Your task to perform on an android device: toggle pop-ups in chrome Image 0: 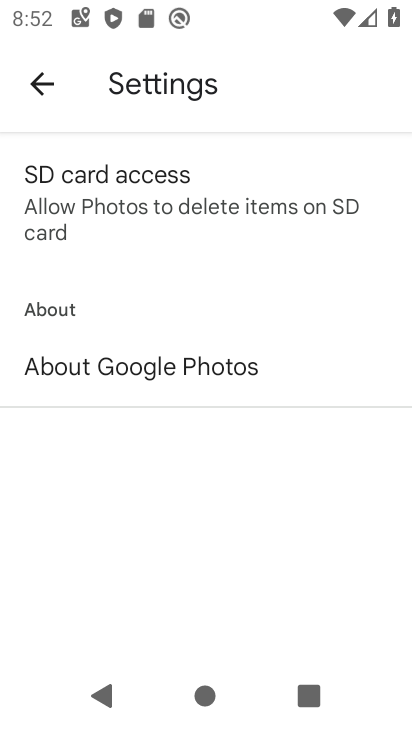
Step 0: drag from (220, 542) to (322, 54)
Your task to perform on an android device: toggle pop-ups in chrome Image 1: 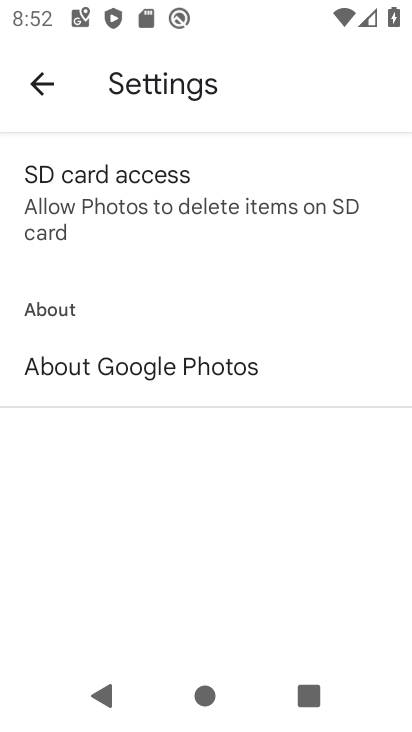
Step 1: press home button
Your task to perform on an android device: toggle pop-ups in chrome Image 2: 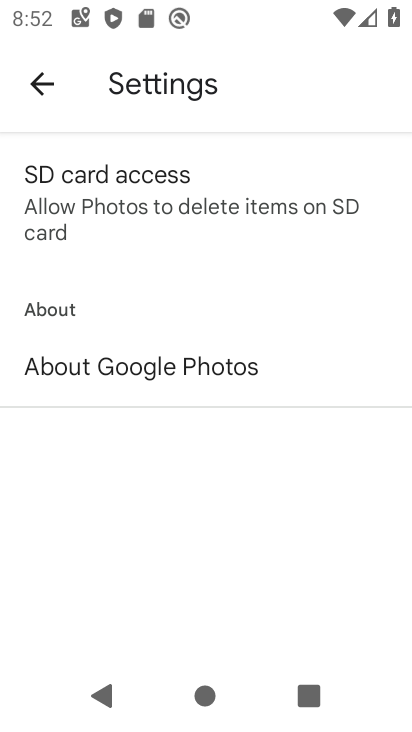
Step 2: press home button
Your task to perform on an android device: toggle pop-ups in chrome Image 3: 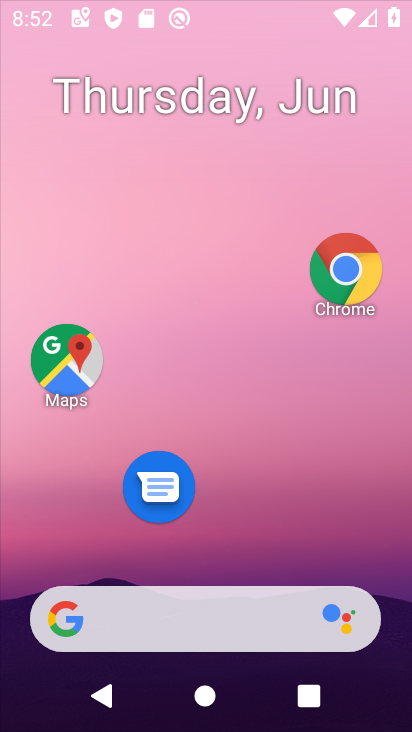
Step 3: click (278, 276)
Your task to perform on an android device: toggle pop-ups in chrome Image 4: 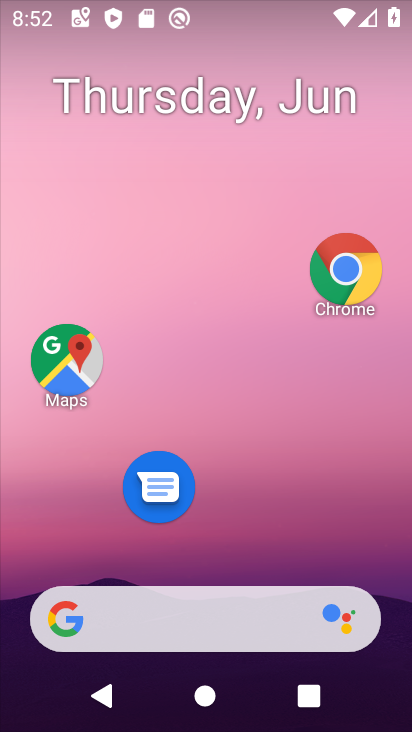
Step 4: click (237, 163)
Your task to perform on an android device: toggle pop-ups in chrome Image 5: 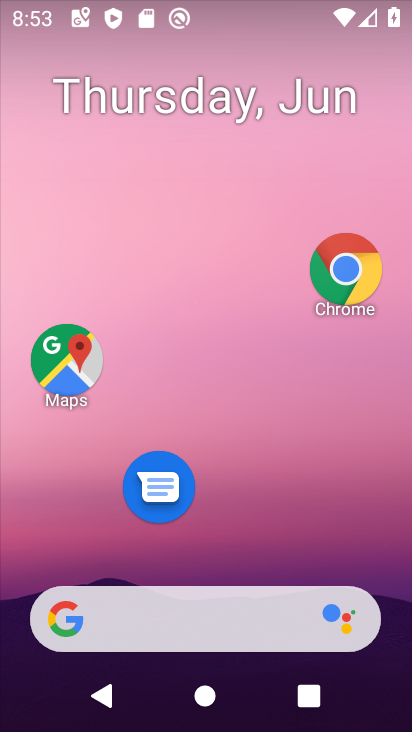
Step 5: drag from (202, 554) to (212, 91)
Your task to perform on an android device: toggle pop-ups in chrome Image 6: 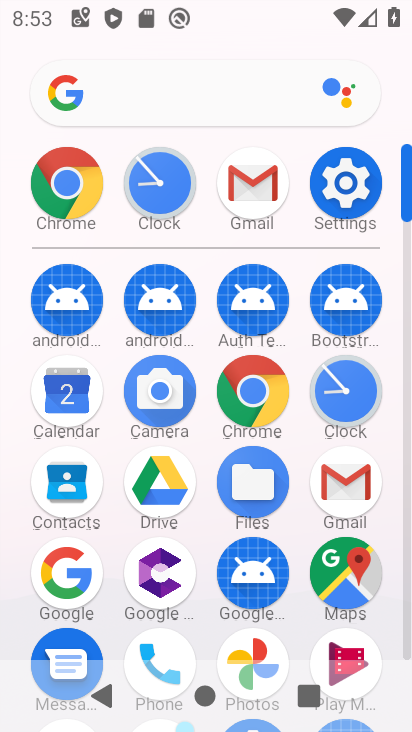
Step 6: drag from (215, 642) to (212, 216)
Your task to perform on an android device: toggle pop-ups in chrome Image 7: 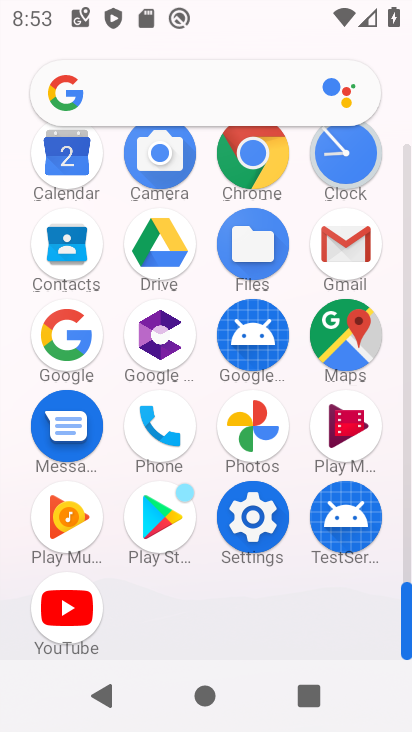
Step 7: click (249, 146)
Your task to perform on an android device: toggle pop-ups in chrome Image 8: 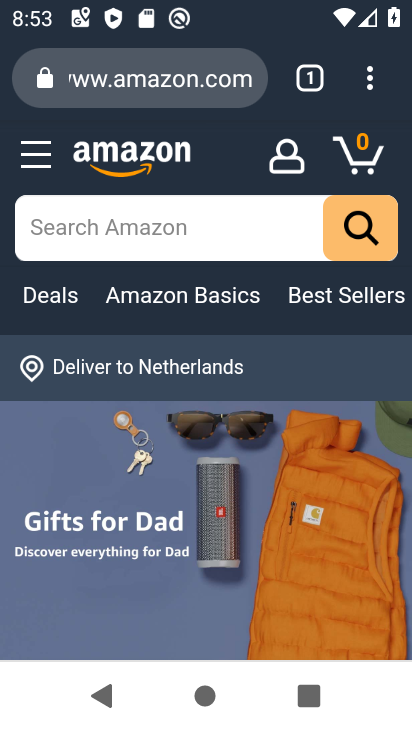
Step 8: drag from (237, 534) to (243, 77)
Your task to perform on an android device: toggle pop-ups in chrome Image 9: 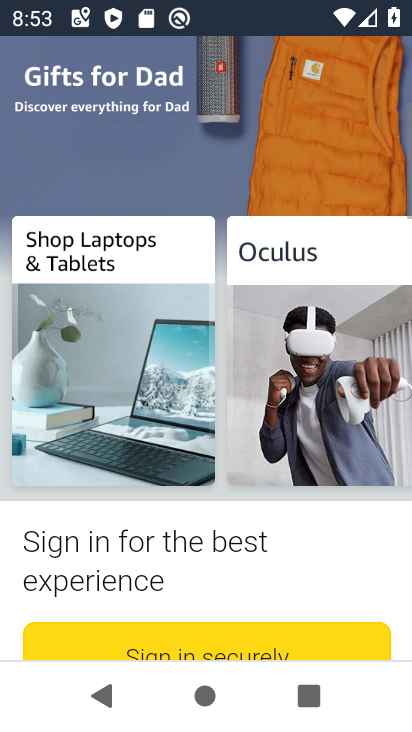
Step 9: drag from (212, 153) to (244, 657)
Your task to perform on an android device: toggle pop-ups in chrome Image 10: 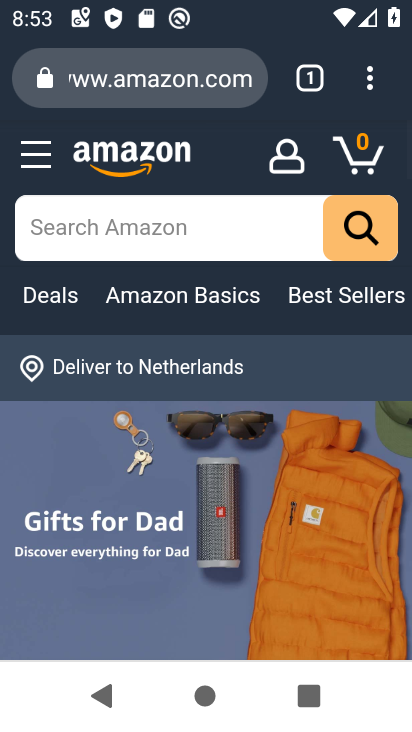
Step 10: drag from (217, 177) to (255, 678)
Your task to perform on an android device: toggle pop-ups in chrome Image 11: 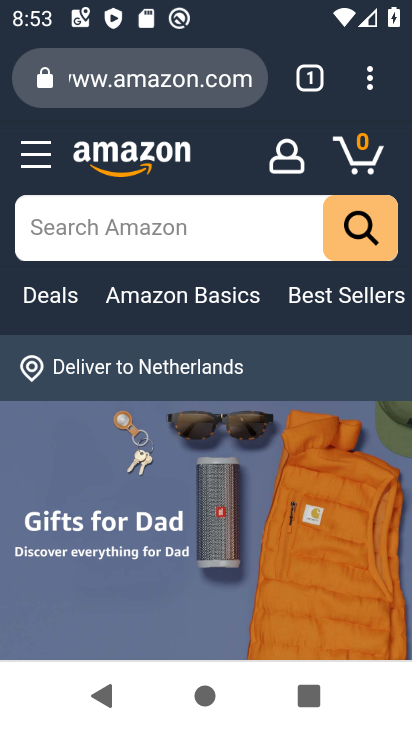
Step 11: drag from (372, 85) to (126, 575)
Your task to perform on an android device: toggle pop-ups in chrome Image 12: 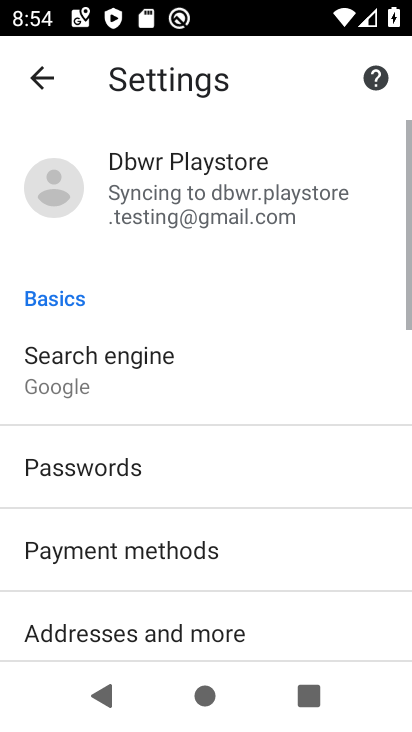
Step 12: drag from (193, 496) to (239, 6)
Your task to perform on an android device: toggle pop-ups in chrome Image 13: 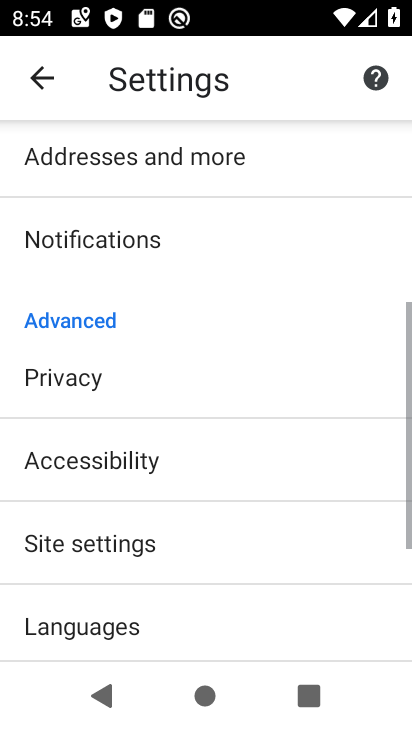
Step 13: drag from (240, 480) to (258, 106)
Your task to perform on an android device: toggle pop-ups in chrome Image 14: 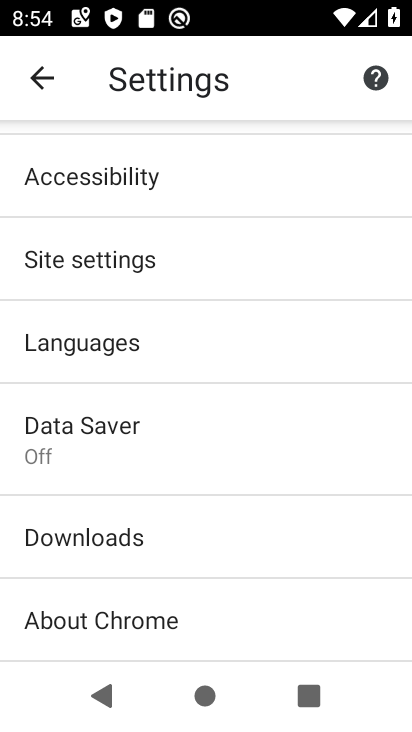
Step 14: drag from (195, 548) to (266, 53)
Your task to perform on an android device: toggle pop-ups in chrome Image 15: 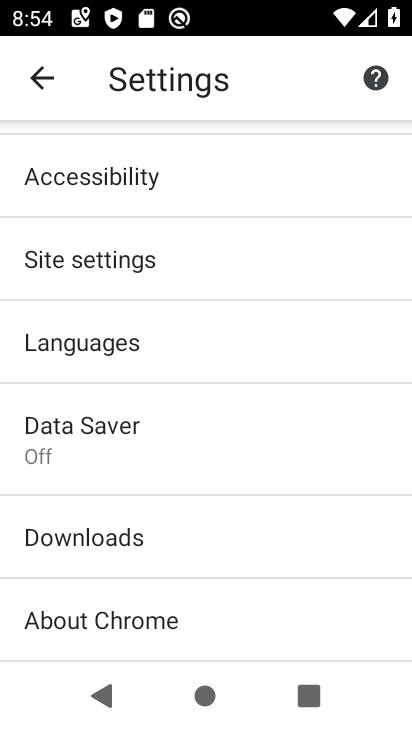
Step 15: click (140, 248)
Your task to perform on an android device: toggle pop-ups in chrome Image 16: 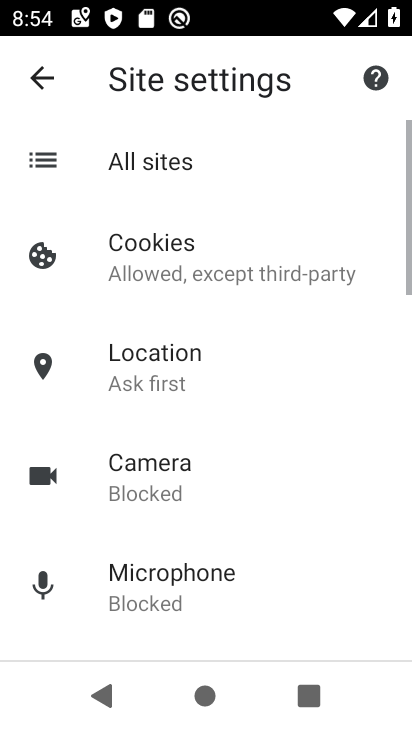
Step 16: drag from (238, 543) to (243, 220)
Your task to perform on an android device: toggle pop-ups in chrome Image 17: 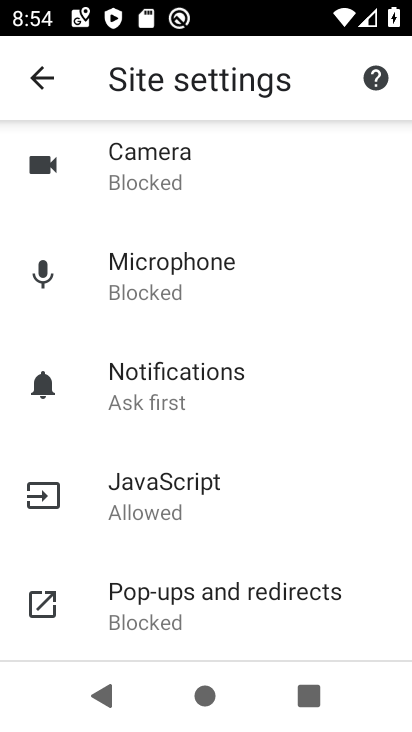
Step 17: click (169, 604)
Your task to perform on an android device: toggle pop-ups in chrome Image 18: 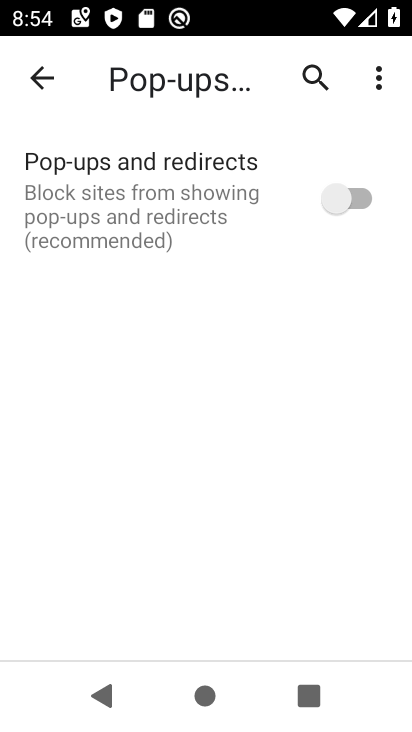
Step 18: click (252, 132)
Your task to perform on an android device: toggle pop-ups in chrome Image 19: 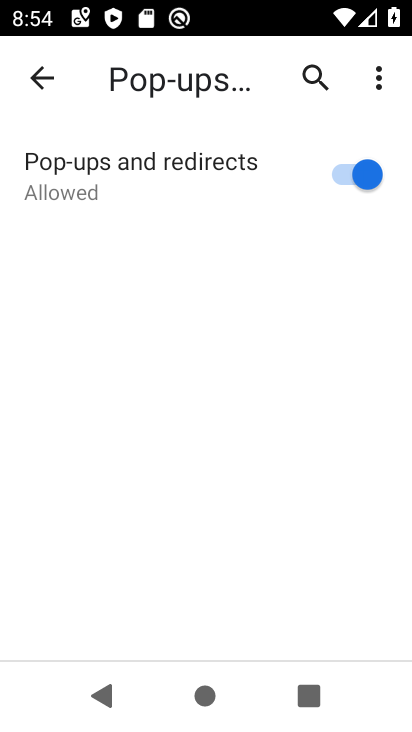
Step 19: click (374, 161)
Your task to perform on an android device: toggle pop-ups in chrome Image 20: 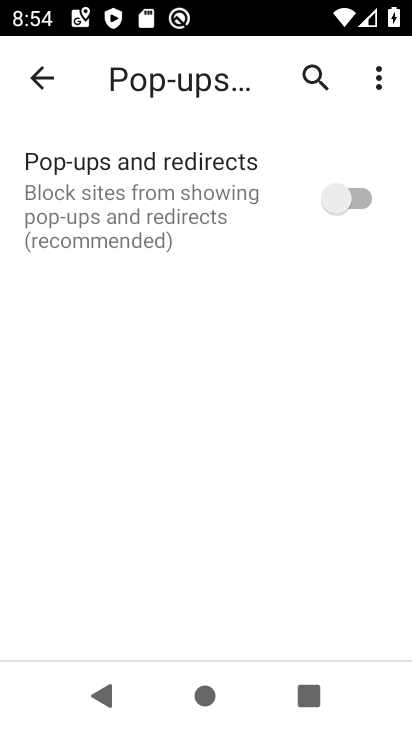
Step 20: task complete